Your task to perform on an android device: turn smart compose on in the gmail app Image 0: 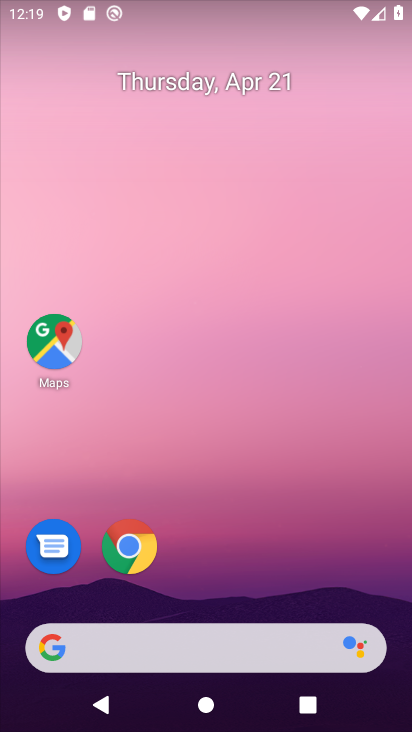
Step 0: drag from (206, 568) to (228, 125)
Your task to perform on an android device: turn smart compose on in the gmail app Image 1: 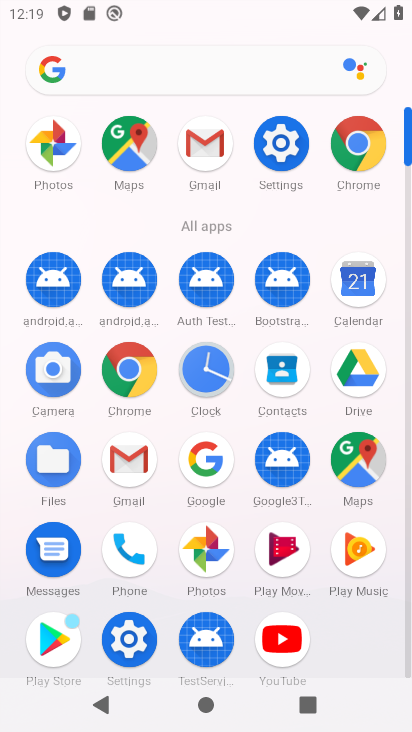
Step 1: click (132, 472)
Your task to perform on an android device: turn smart compose on in the gmail app Image 2: 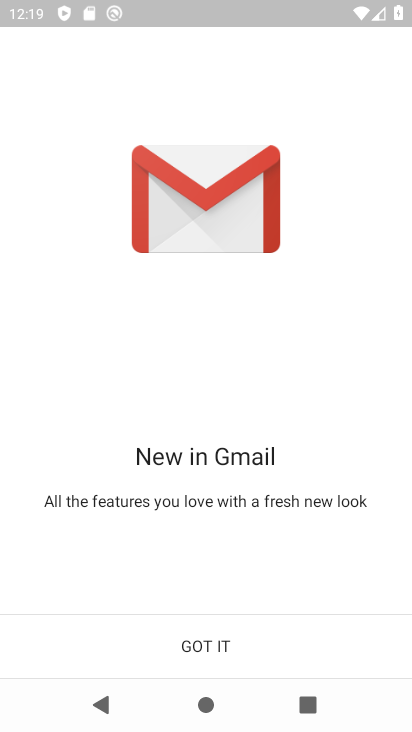
Step 2: click (238, 639)
Your task to perform on an android device: turn smart compose on in the gmail app Image 3: 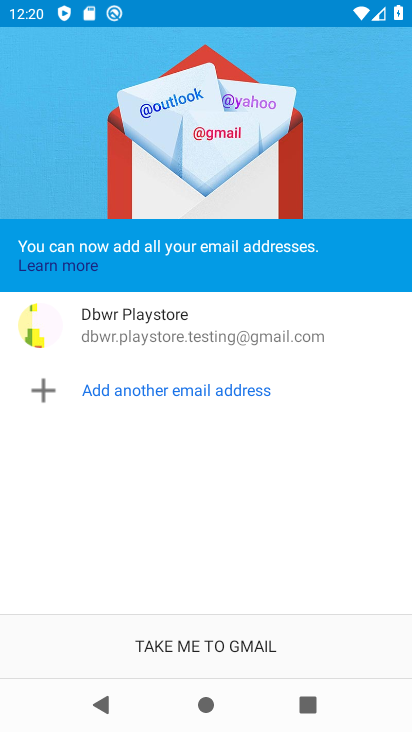
Step 3: click (204, 631)
Your task to perform on an android device: turn smart compose on in the gmail app Image 4: 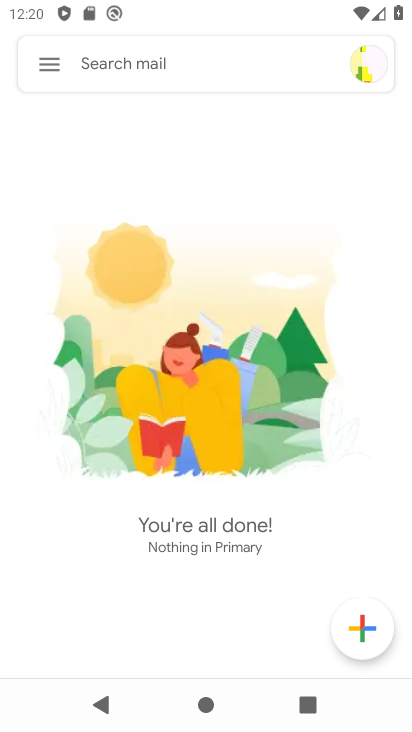
Step 4: click (60, 67)
Your task to perform on an android device: turn smart compose on in the gmail app Image 5: 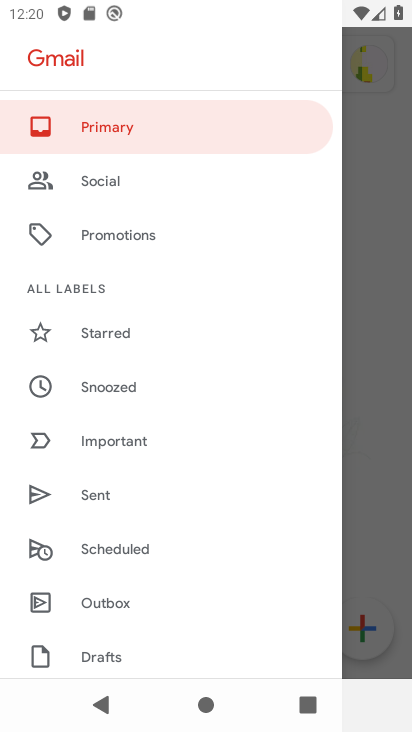
Step 5: drag from (195, 549) to (174, 136)
Your task to perform on an android device: turn smart compose on in the gmail app Image 6: 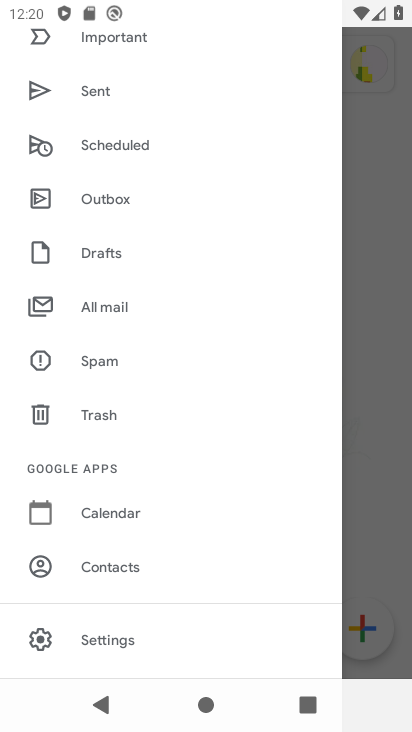
Step 6: click (134, 635)
Your task to perform on an android device: turn smart compose on in the gmail app Image 7: 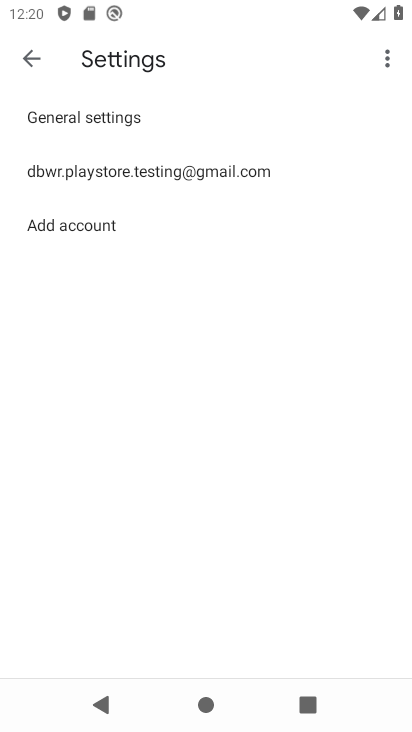
Step 7: click (134, 164)
Your task to perform on an android device: turn smart compose on in the gmail app Image 8: 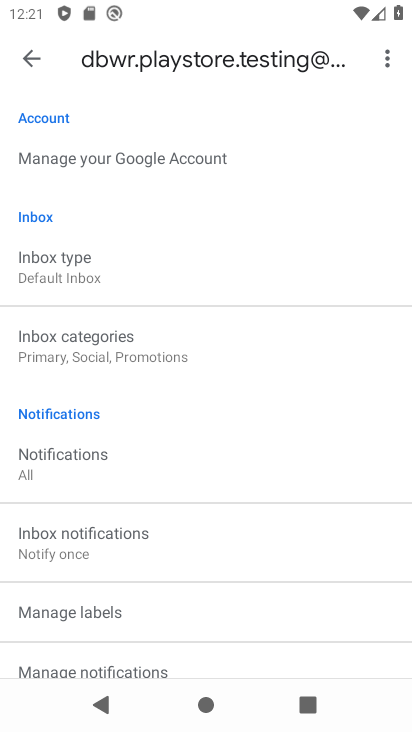
Step 8: task complete